Your task to perform on an android device: Go to CNN.com Image 0: 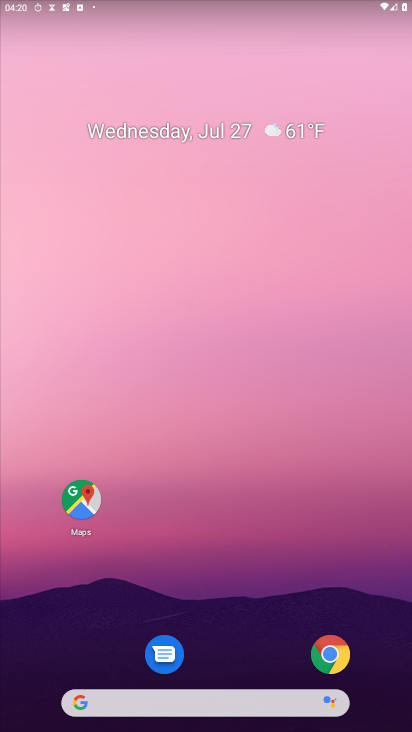
Step 0: drag from (289, 683) to (409, 61)
Your task to perform on an android device: Go to CNN.com Image 1: 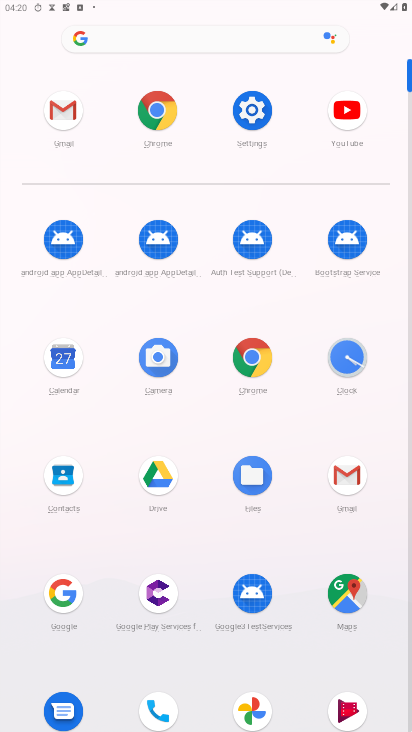
Step 1: click (255, 357)
Your task to perform on an android device: Go to CNN.com Image 2: 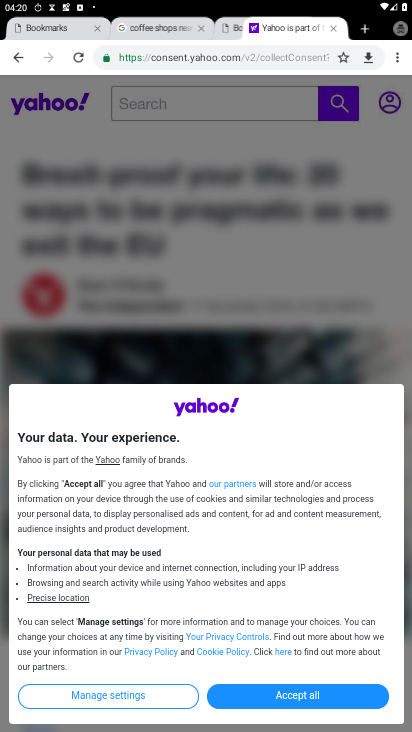
Step 2: click (247, 49)
Your task to perform on an android device: Go to CNN.com Image 3: 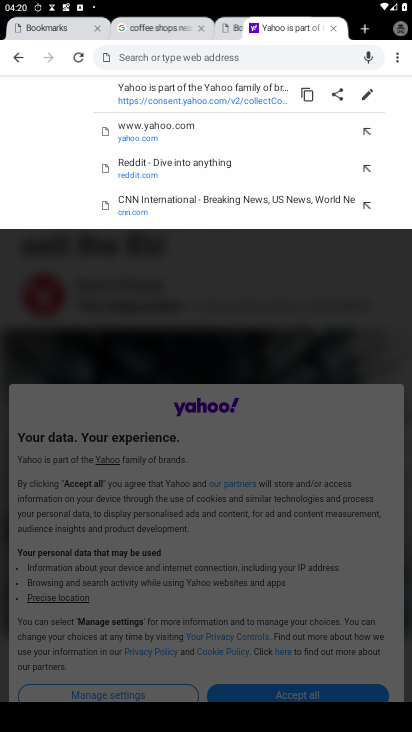
Step 3: type "cnn.com"
Your task to perform on an android device: Go to CNN.com Image 4: 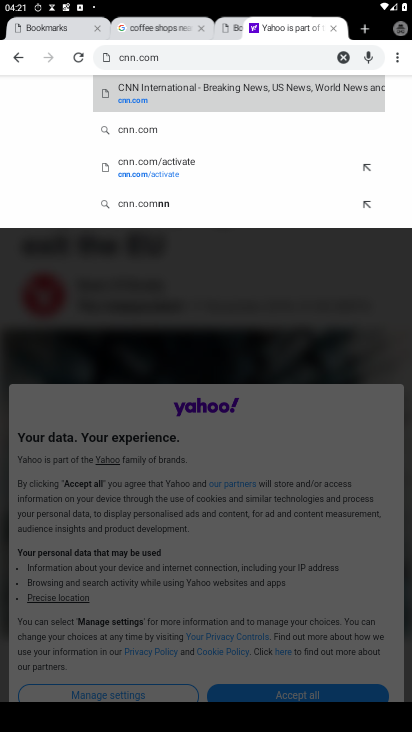
Step 4: click (252, 99)
Your task to perform on an android device: Go to CNN.com Image 5: 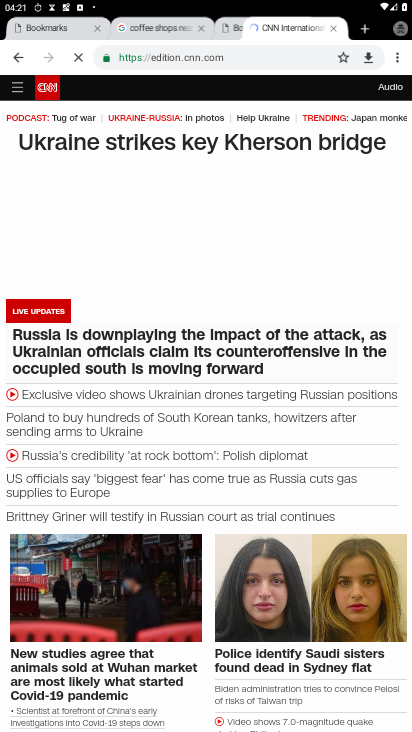
Step 5: task complete